Your task to perform on an android device: Check the weather Image 0: 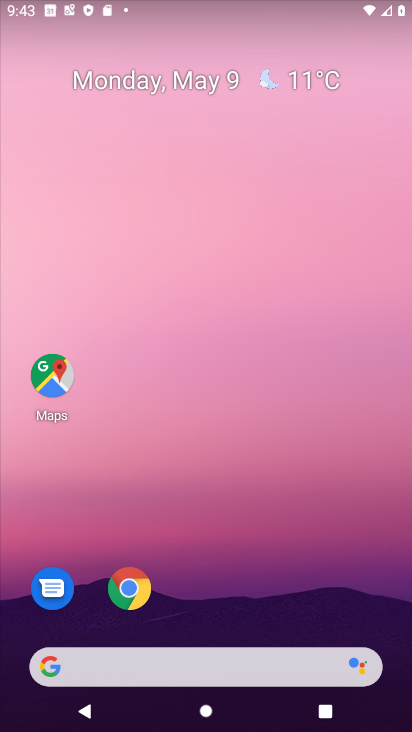
Step 0: press home button
Your task to perform on an android device: Check the weather Image 1: 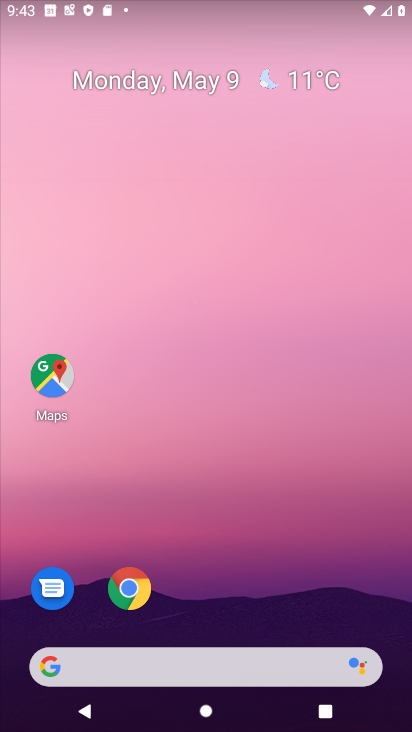
Step 1: click (305, 74)
Your task to perform on an android device: Check the weather Image 2: 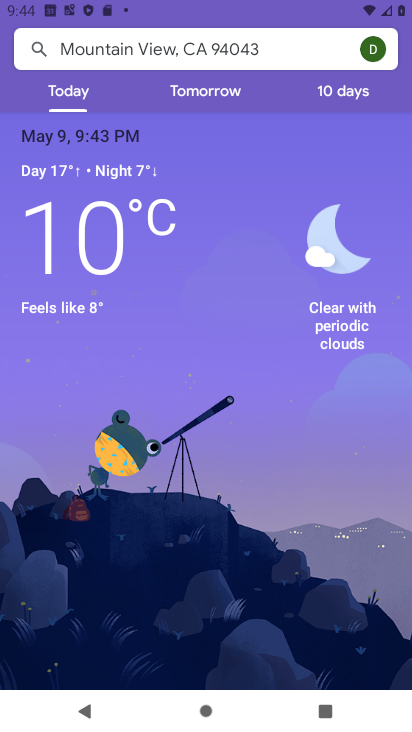
Step 2: task complete